Your task to perform on an android device: turn off priority inbox in the gmail app Image 0: 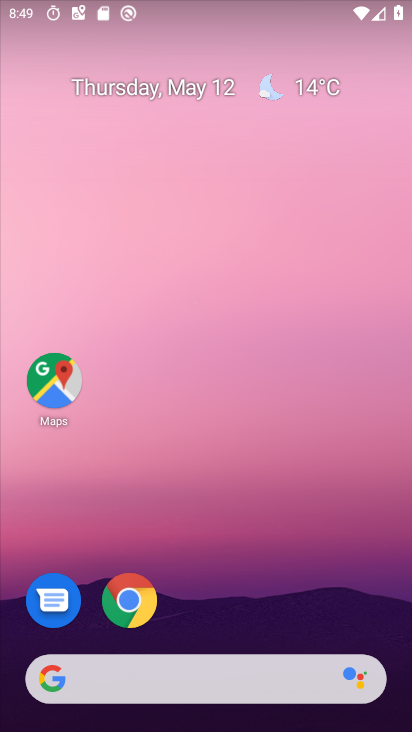
Step 0: drag from (279, 473) to (410, 265)
Your task to perform on an android device: turn off priority inbox in the gmail app Image 1: 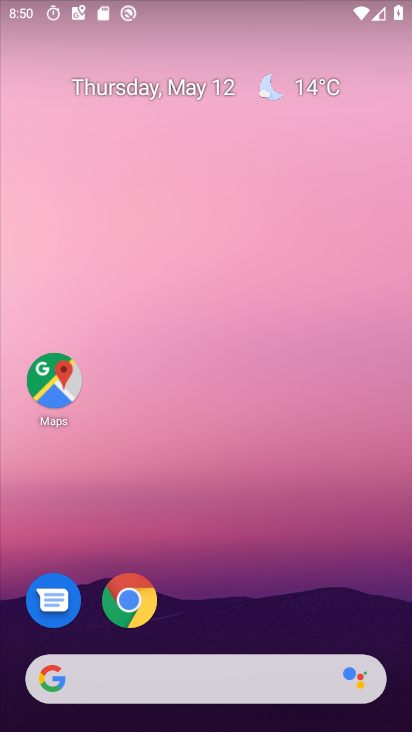
Step 1: drag from (358, 547) to (267, 4)
Your task to perform on an android device: turn off priority inbox in the gmail app Image 2: 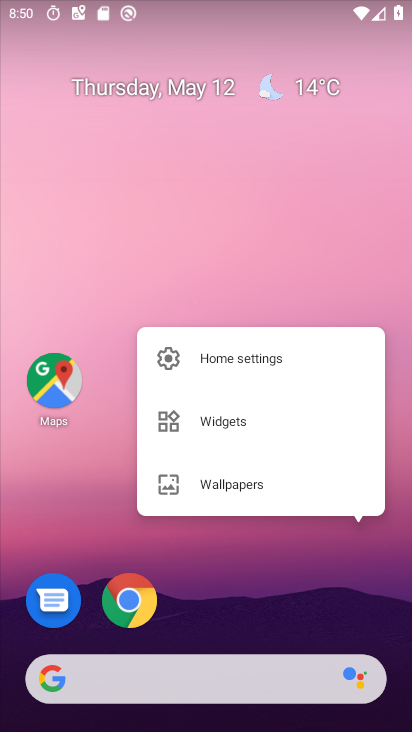
Step 2: click (149, 222)
Your task to perform on an android device: turn off priority inbox in the gmail app Image 3: 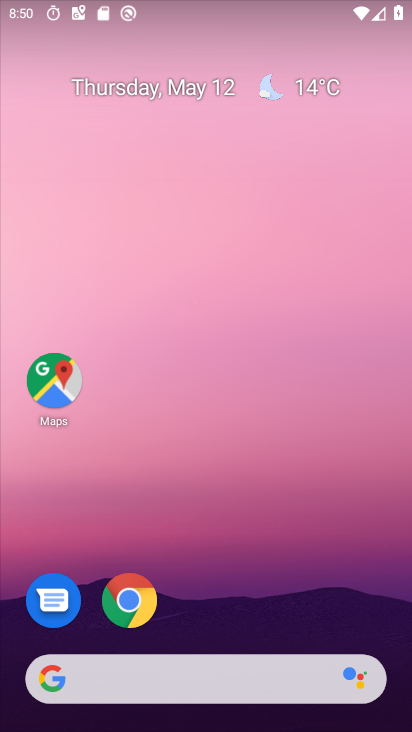
Step 3: click (168, 83)
Your task to perform on an android device: turn off priority inbox in the gmail app Image 4: 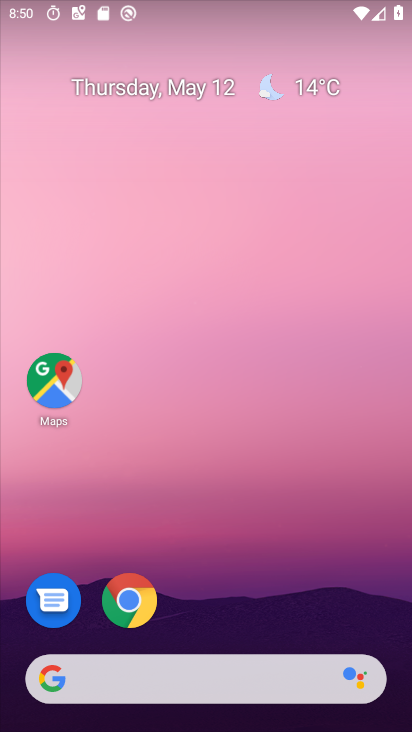
Step 4: drag from (245, 202) to (87, 80)
Your task to perform on an android device: turn off priority inbox in the gmail app Image 5: 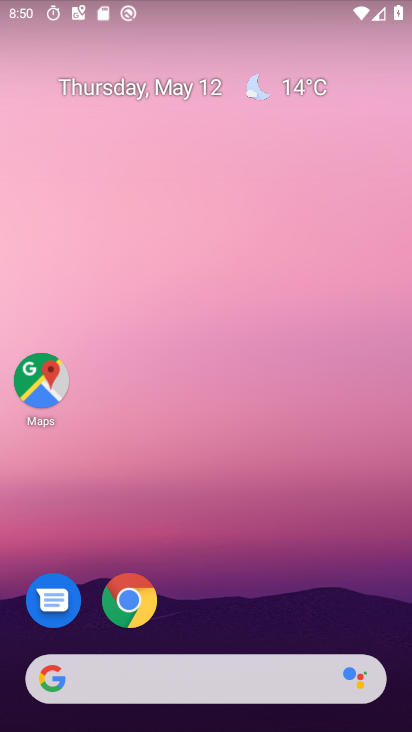
Step 5: click (170, 16)
Your task to perform on an android device: turn off priority inbox in the gmail app Image 6: 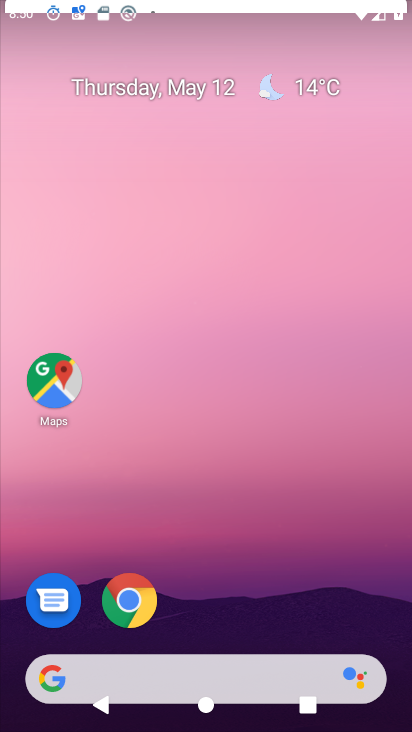
Step 6: drag from (119, 200) to (400, 39)
Your task to perform on an android device: turn off priority inbox in the gmail app Image 7: 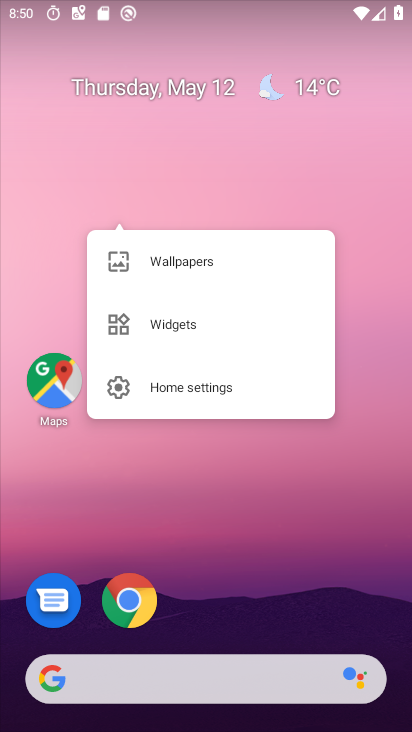
Step 7: drag from (311, 497) to (216, 5)
Your task to perform on an android device: turn off priority inbox in the gmail app Image 8: 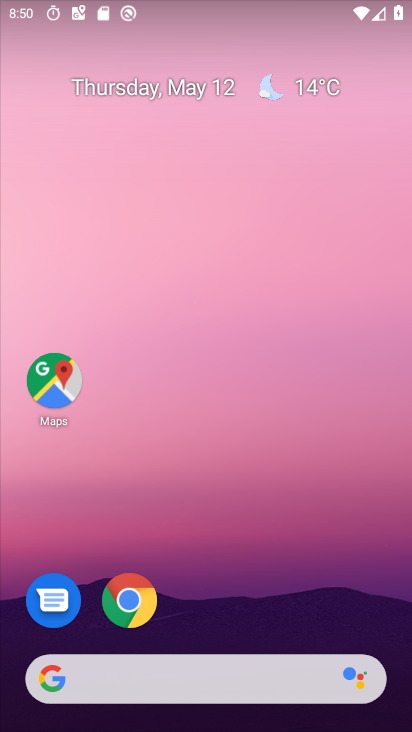
Step 8: drag from (252, 465) to (196, 0)
Your task to perform on an android device: turn off priority inbox in the gmail app Image 9: 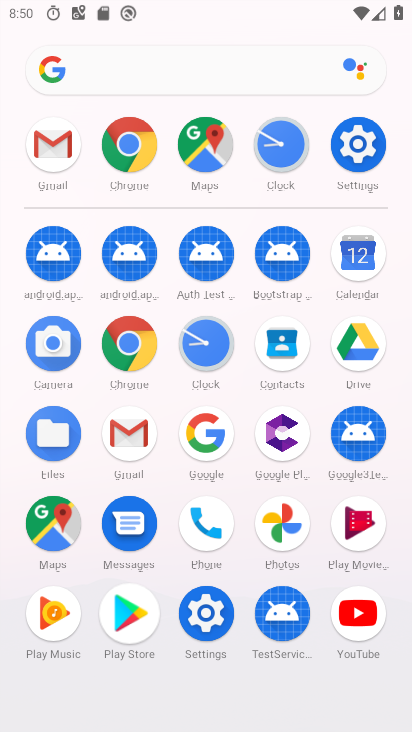
Step 9: drag from (208, 358) to (201, 50)
Your task to perform on an android device: turn off priority inbox in the gmail app Image 10: 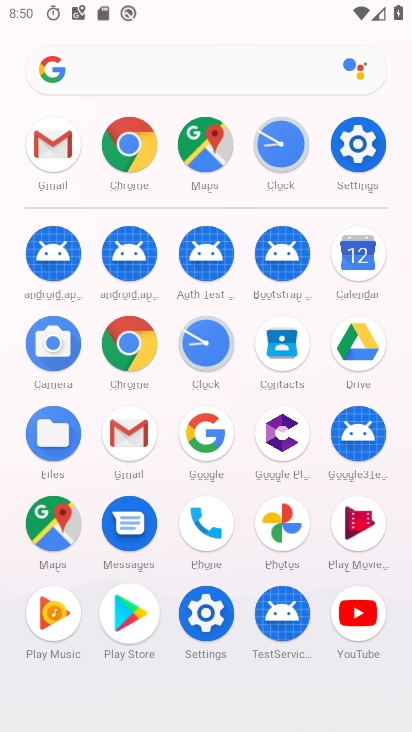
Step 10: click (132, 436)
Your task to perform on an android device: turn off priority inbox in the gmail app Image 11: 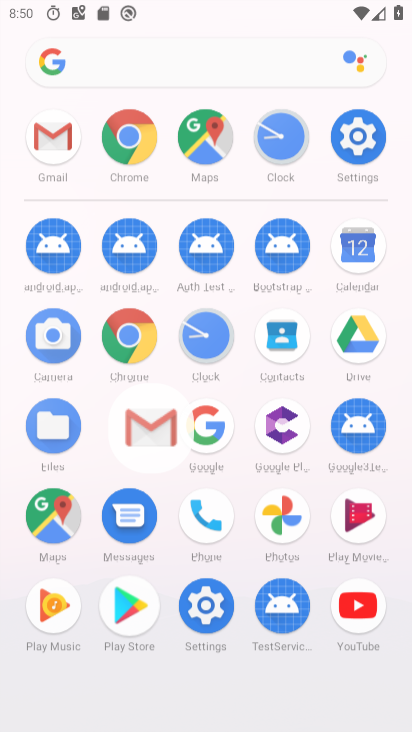
Step 11: click (131, 435)
Your task to perform on an android device: turn off priority inbox in the gmail app Image 12: 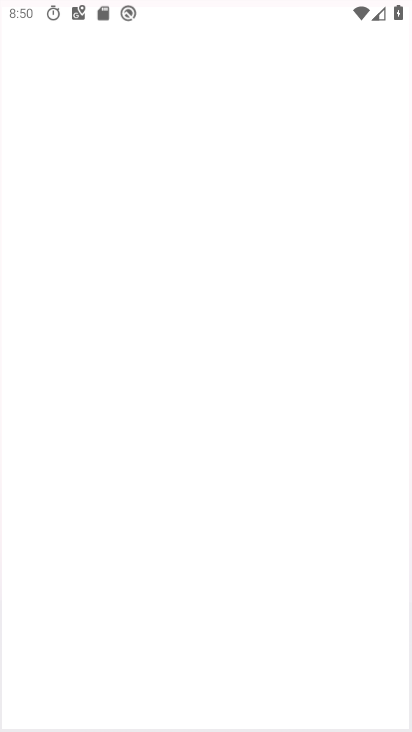
Step 12: click (131, 435)
Your task to perform on an android device: turn off priority inbox in the gmail app Image 13: 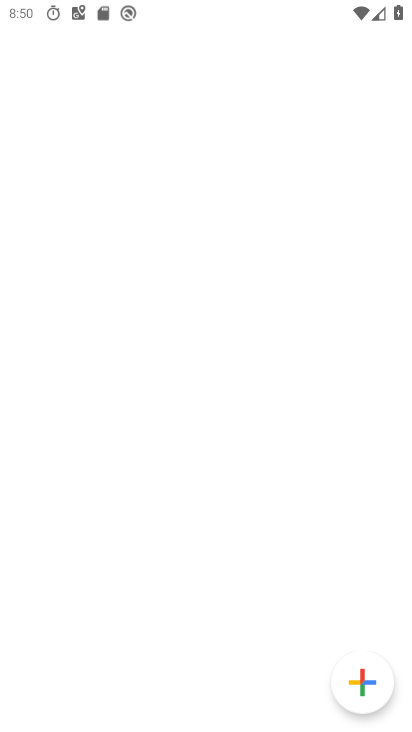
Step 13: click (131, 435)
Your task to perform on an android device: turn off priority inbox in the gmail app Image 14: 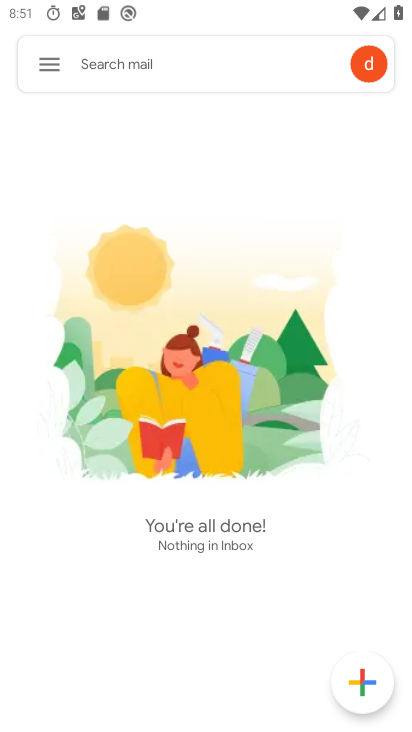
Step 14: click (48, 63)
Your task to perform on an android device: turn off priority inbox in the gmail app Image 15: 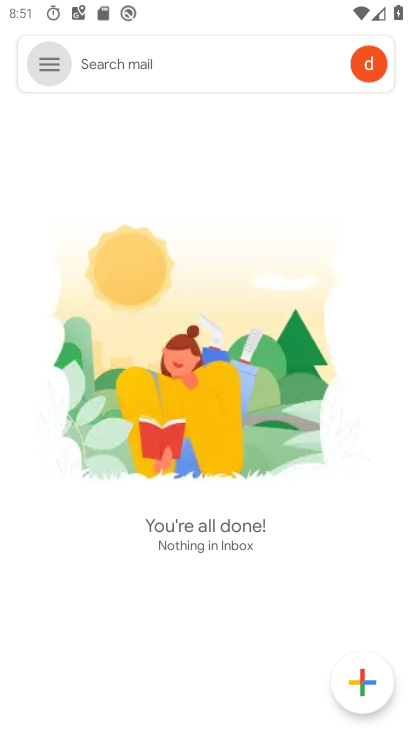
Step 15: click (48, 63)
Your task to perform on an android device: turn off priority inbox in the gmail app Image 16: 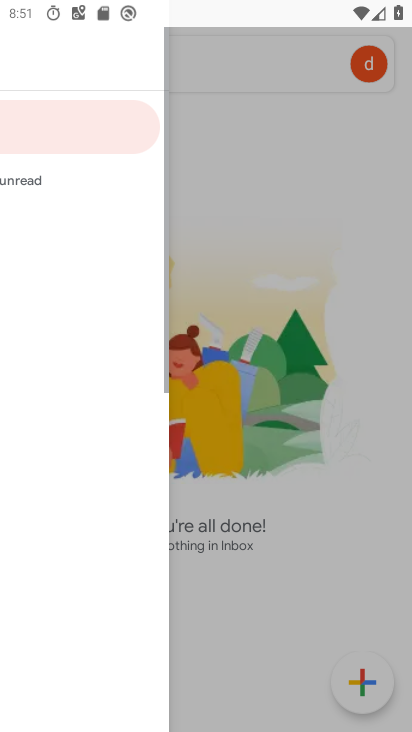
Step 16: click (48, 63)
Your task to perform on an android device: turn off priority inbox in the gmail app Image 17: 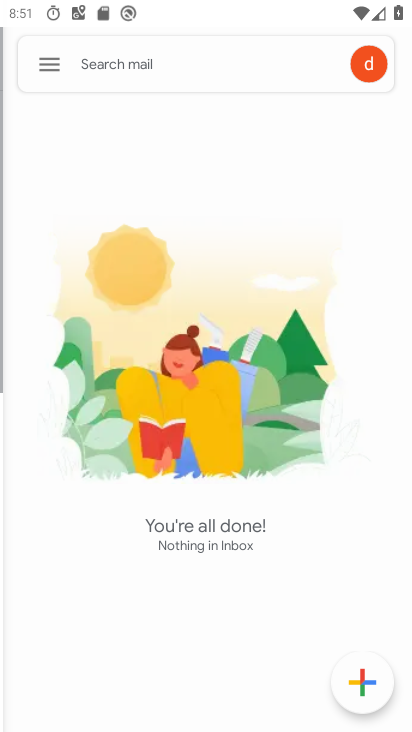
Step 17: click (48, 63)
Your task to perform on an android device: turn off priority inbox in the gmail app Image 18: 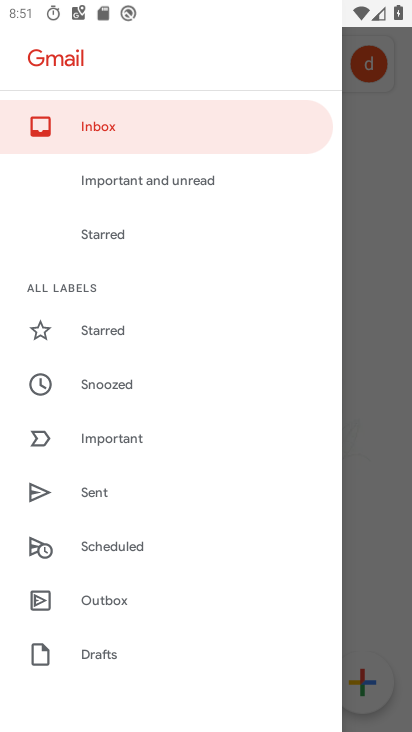
Step 18: drag from (161, 481) to (86, 209)
Your task to perform on an android device: turn off priority inbox in the gmail app Image 19: 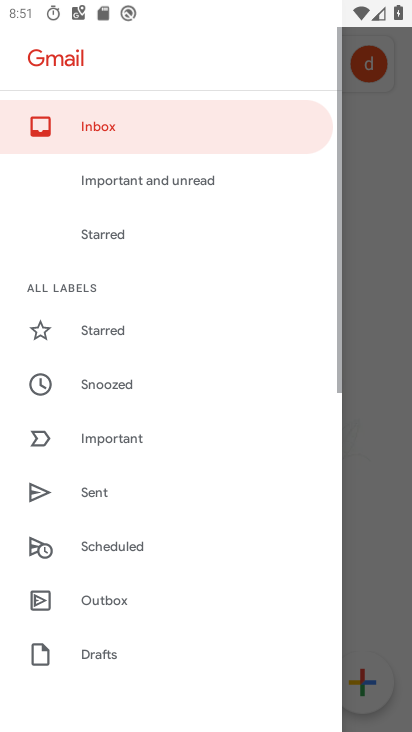
Step 19: drag from (186, 513) to (153, 200)
Your task to perform on an android device: turn off priority inbox in the gmail app Image 20: 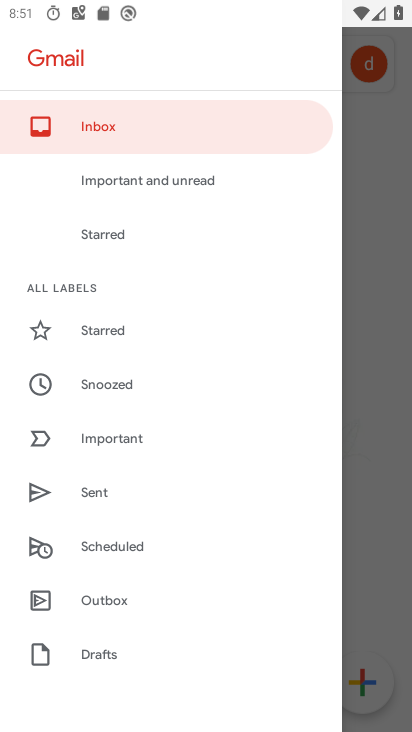
Step 20: drag from (126, 549) to (59, 84)
Your task to perform on an android device: turn off priority inbox in the gmail app Image 21: 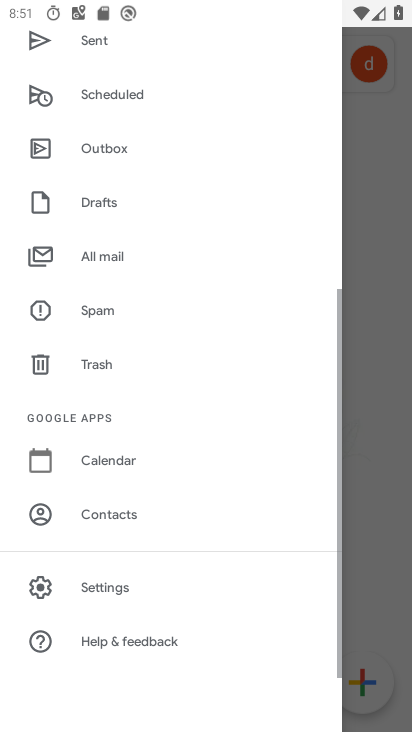
Step 21: drag from (161, 546) to (161, 155)
Your task to perform on an android device: turn off priority inbox in the gmail app Image 22: 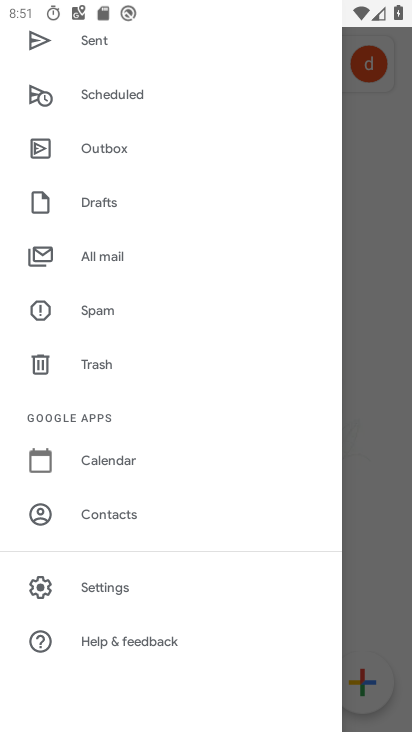
Step 22: click (98, 584)
Your task to perform on an android device: turn off priority inbox in the gmail app Image 23: 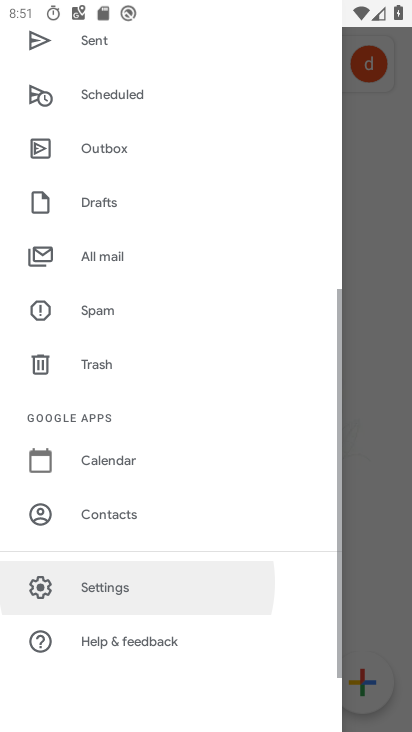
Step 23: click (98, 584)
Your task to perform on an android device: turn off priority inbox in the gmail app Image 24: 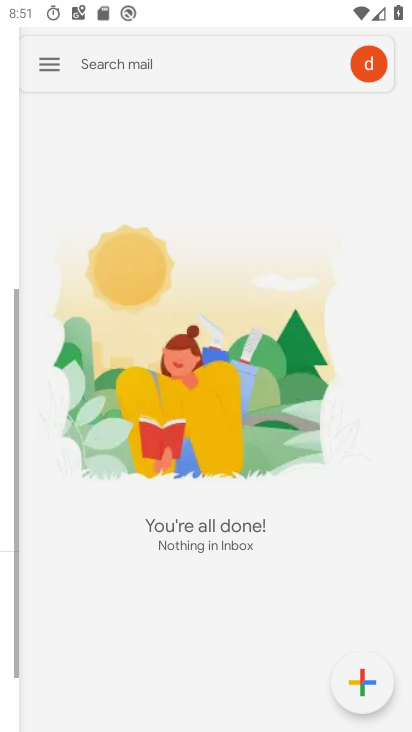
Step 24: click (98, 584)
Your task to perform on an android device: turn off priority inbox in the gmail app Image 25: 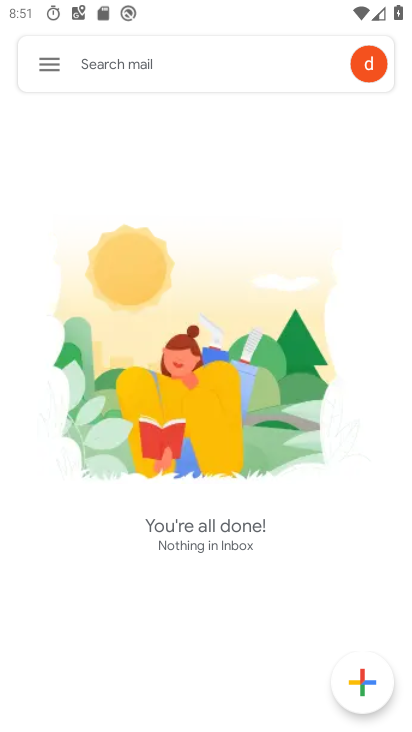
Step 25: click (98, 584)
Your task to perform on an android device: turn off priority inbox in the gmail app Image 26: 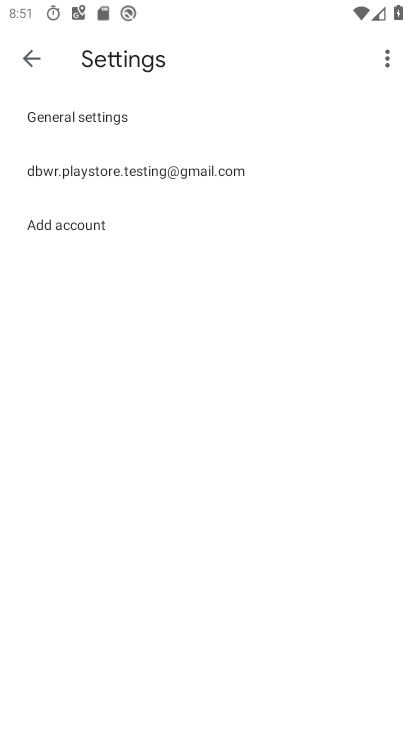
Step 26: click (85, 167)
Your task to perform on an android device: turn off priority inbox in the gmail app Image 27: 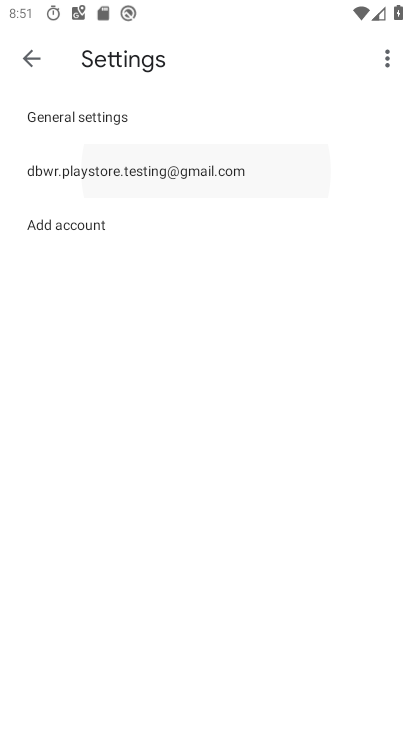
Step 27: click (85, 167)
Your task to perform on an android device: turn off priority inbox in the gmail app Image 28: 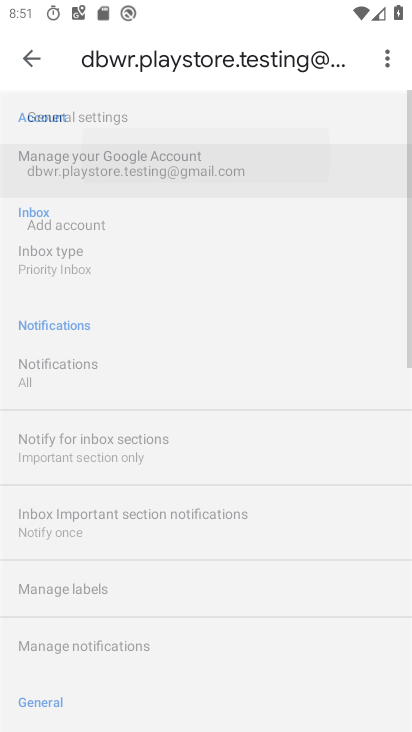
Step 28: click (85, 167)
Your task to perform on an android device: turn off priority inbox in the gmail app Image 29: 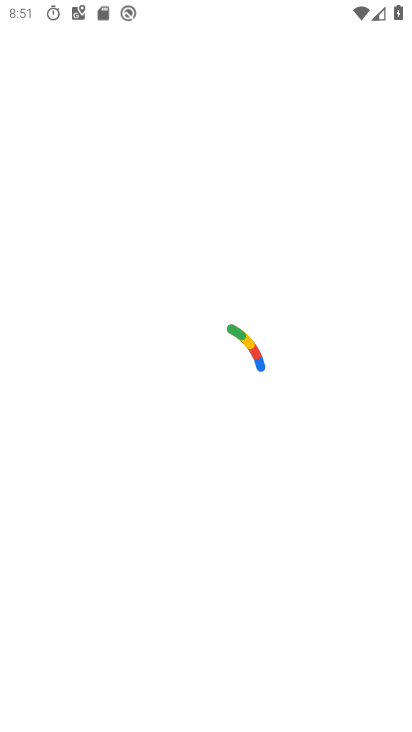
Step 29: press back button
Your task to perform on an android device: turn off priority inbox in the gmail app Image 30: 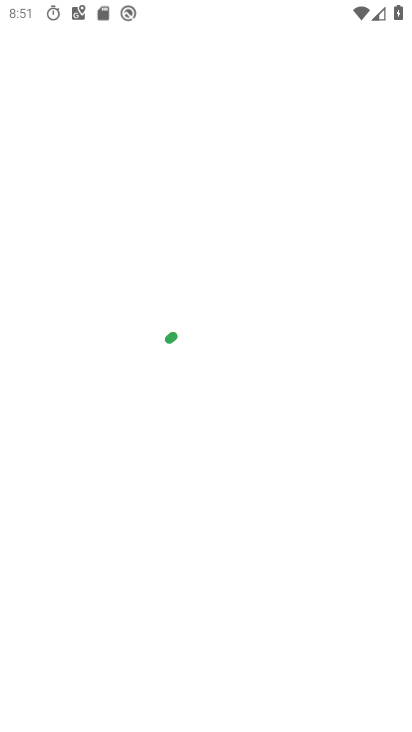
Step 30: press back button
Your task to perform on an android device: turn off priority inbox in the gmail app Image 31: 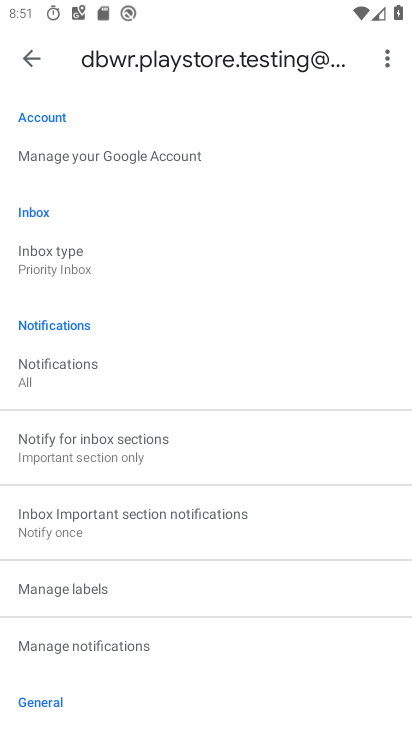
Step 31: click (46, 255)
Your task to perform on an android device: turn off priority inbox in the gmail app Image 32: 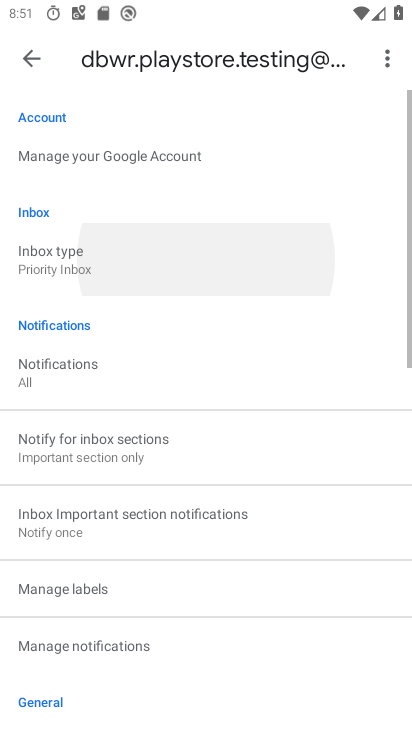
Step 32: click (46, 255)
Your task to perform on an android device: turn off priority inbox in the gmail app Image 33: 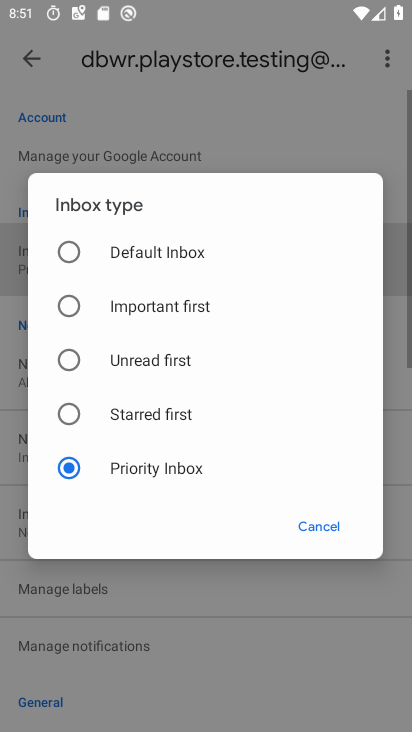
Step 33: click (46, 255)
Your task to perform on an android device: turn off priority inbox in the gmail app Image 34: 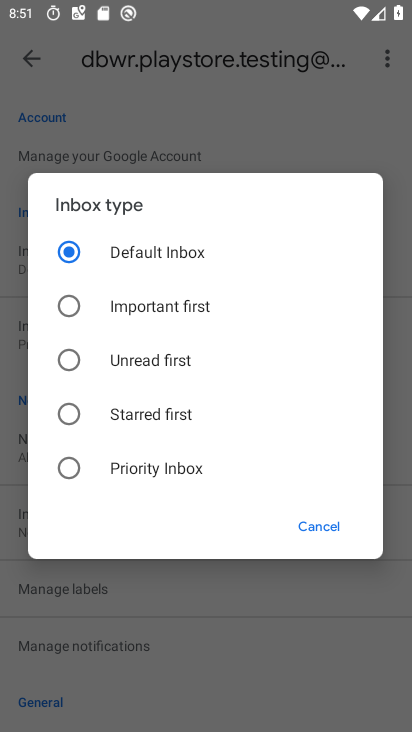
Step 34: click (66, 451)
Your task to perform on an android device: turn off priority inbox in the gmail app Image 35: 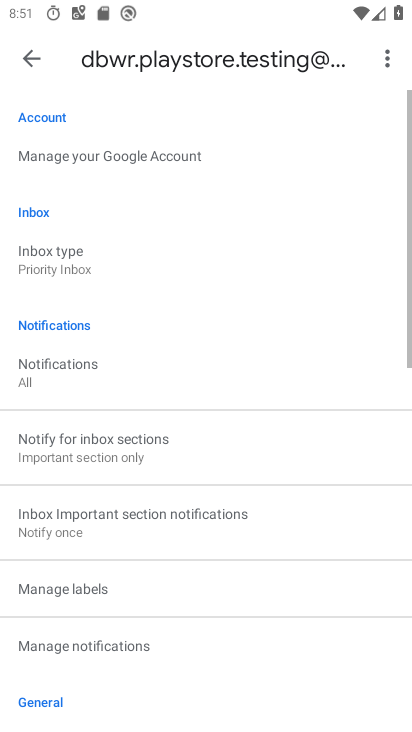
Step 35: click (41, 275)
Your task to perform on an android device: turn off priority inbox in the gmail app Image 36: 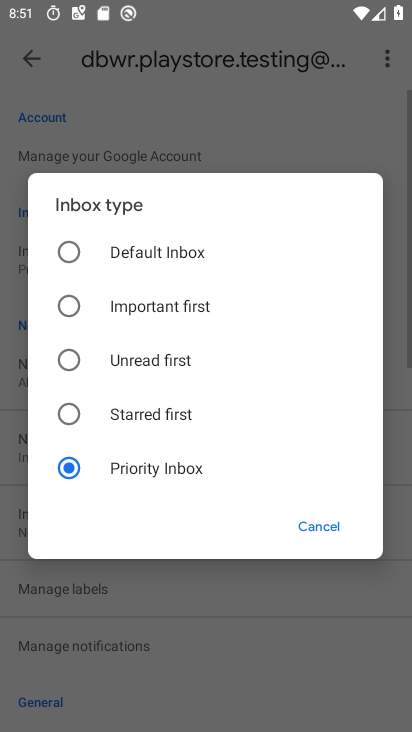
Step 36: click (73, 357)
Your task to perform on an android device: turn off priority inbox in the gmail app Image 37: 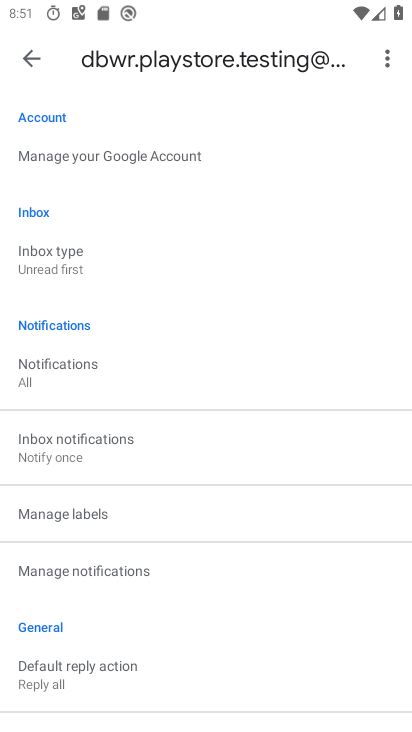
Step 37: task complete